Your task to perform on an android device: Open internet settings Image 0: 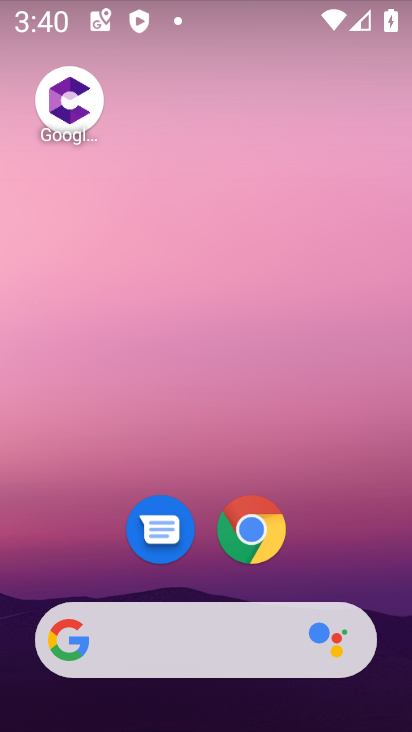
Step 0: drag from (333, 552) to (323, 88)
Your task to perform on an android device: Open internet settings Image 1: 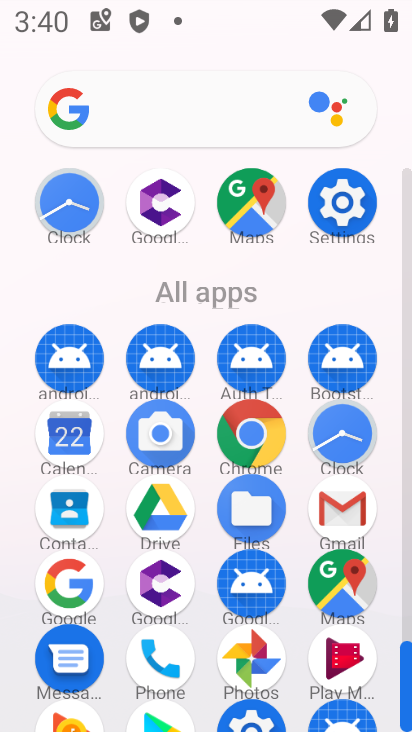
Step 1: click (343, 222)
Your task to perform on an android device: Open internet settings Image 2: 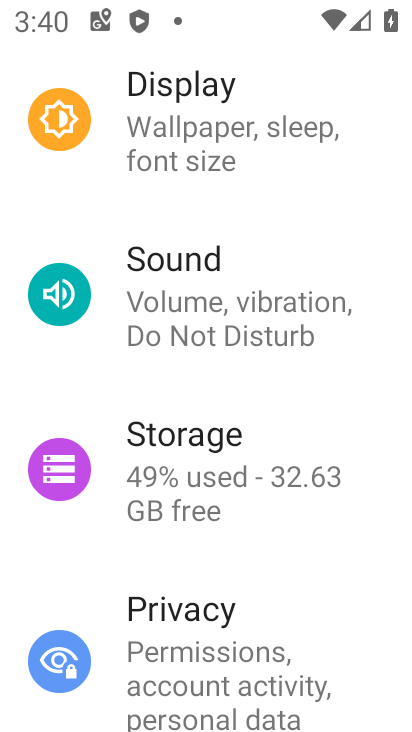
Step 2: drag from (271, 234) to (278, 588)
Your task to perform on an android device: Open internet settings Image 3: 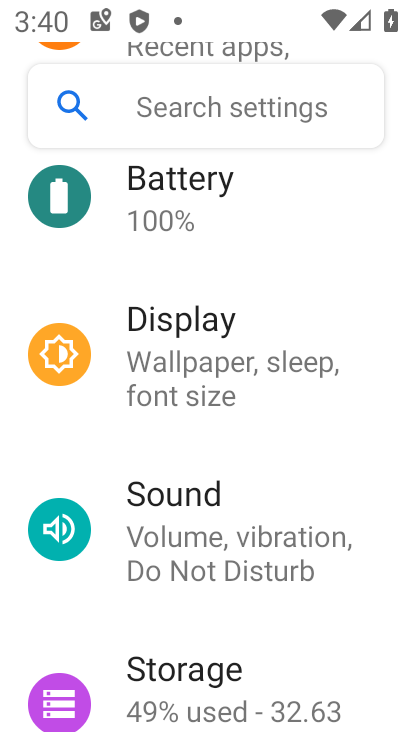
Step 3: drag from (314, 425) to (323, 639)
Your task to perform on an android device: Open internet settings Image 4: 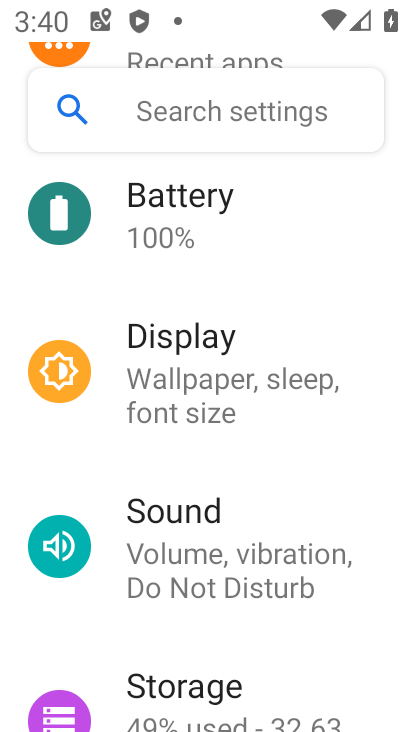
Step 4: drag from (290, 425) to (278, 592)
Your task to perform on an android device: Open internet settings Image 5: 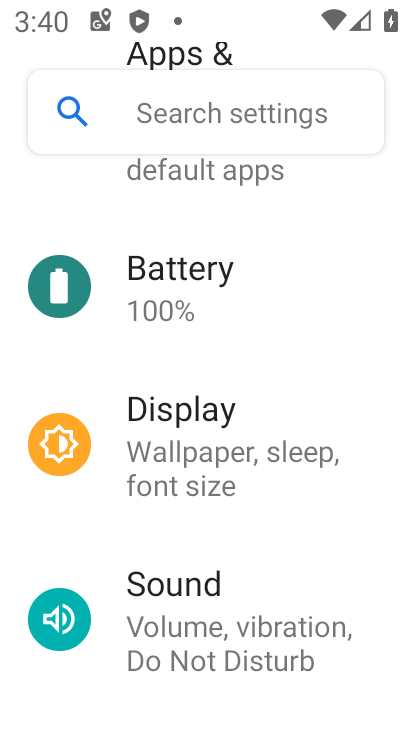
Step 5: drag from (288, 396) to (279, 543)
Your task to perform on an android device: Open internet settings Image 6: 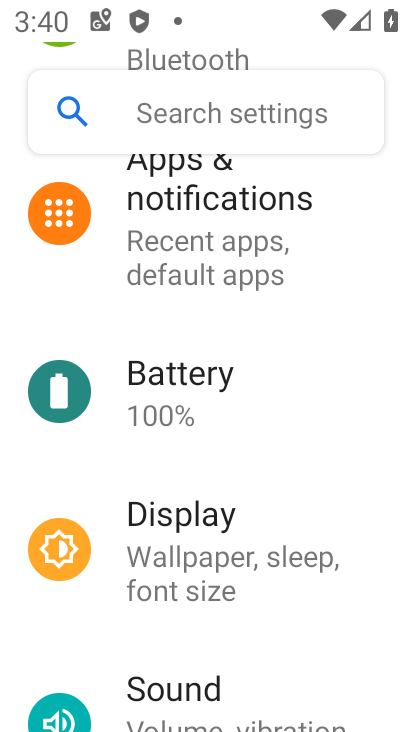
Step 6: drag from (290, 429) to (300, 600)
Your task to perform on an android device: Open internet settings Image 7: 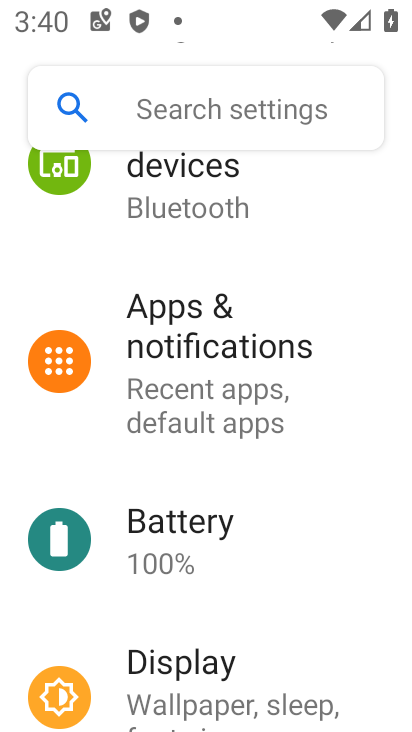
Step 7: drag from (304, 412) to (297, 571)
Your task to perform on an android device: Open internet settings Image 8: 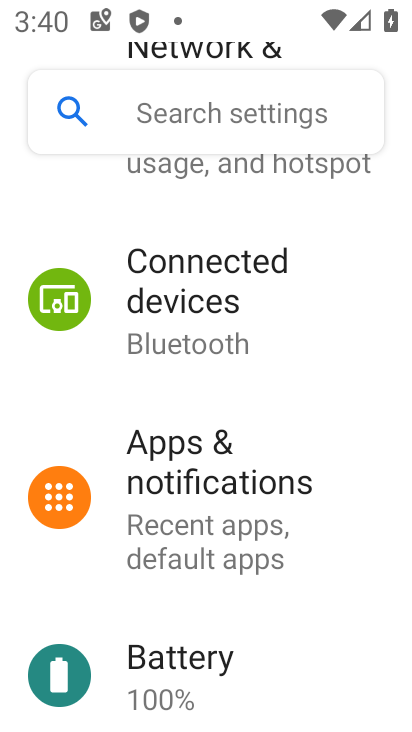
Step 8: drag from (280, 444) to (288, 555)
Your task to perform on an android device: Open internet settings Image 9: 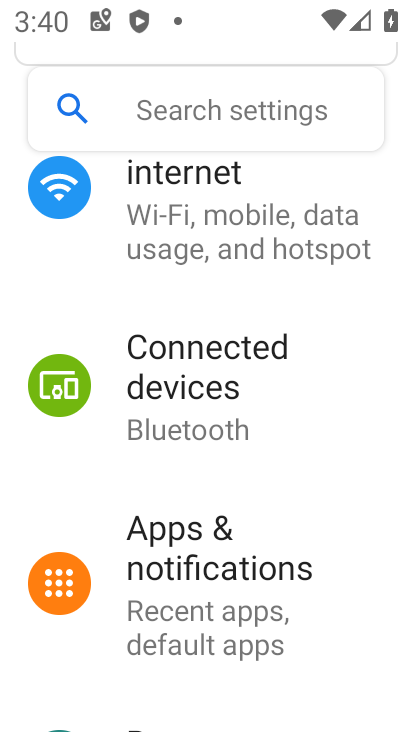
Step 9: click (266, 228)
Your task to perform on an android device: Open internet settings Image 10: 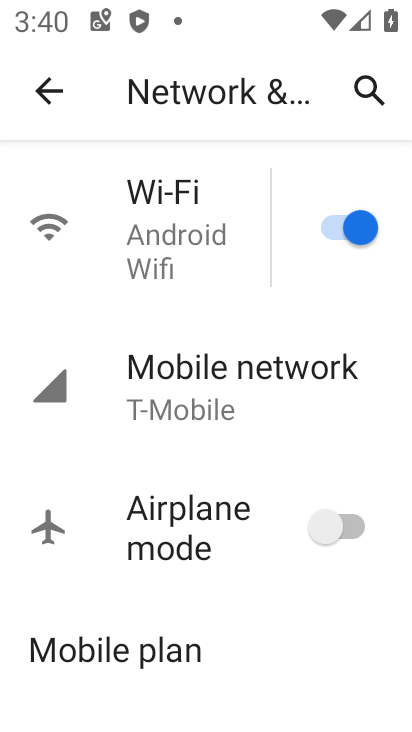
Step 10: click (200, 397)
Your task to perform on an android device: Open internet settings Image 11: 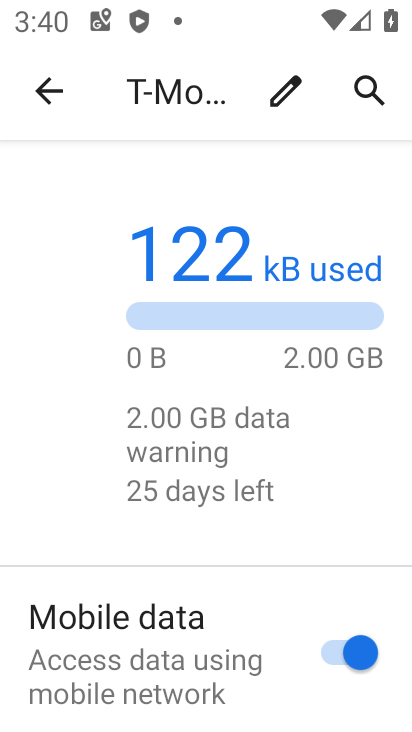
Step 11: task complete